Your task to perform on an android device: snooze an email in the gmail app Image 0: 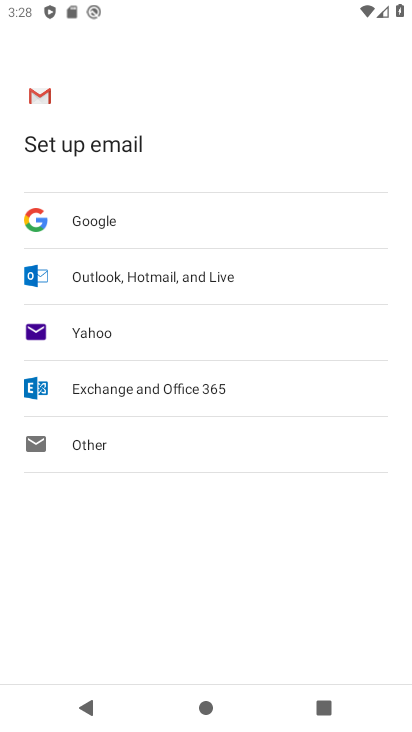
Step 0: press home button
Your task to perform on an android device: snooze an email in the gmail app Image 1: 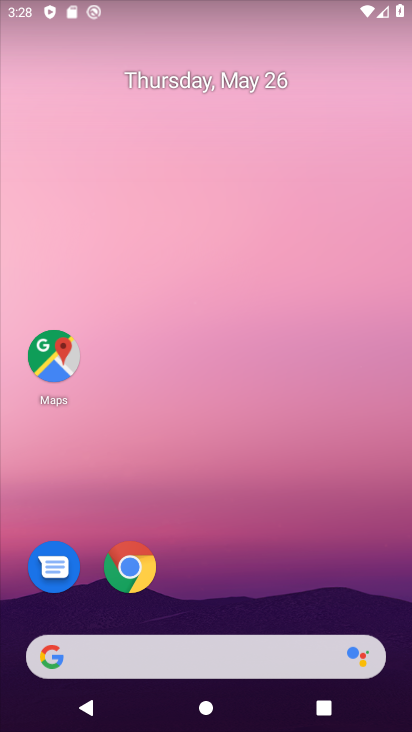
Step 1: drag from (263, 579) to (334, 116)
Your task to perform on an android device: snooze an email in the gmail app Image 2: 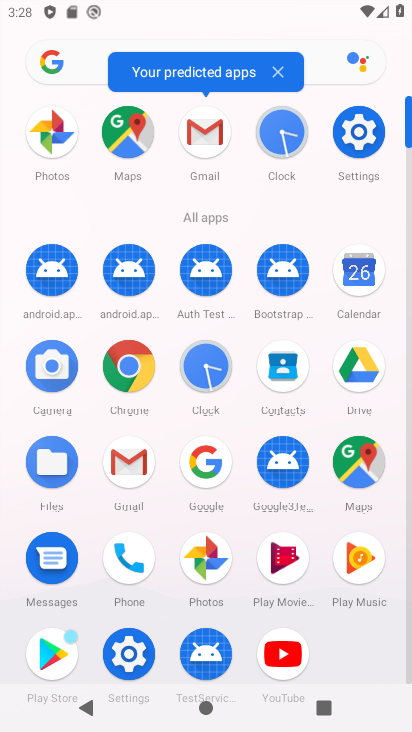
Step 2: click (145, 465)
Your task to perform on an android device: snooze an email in the gmail app Image 3: 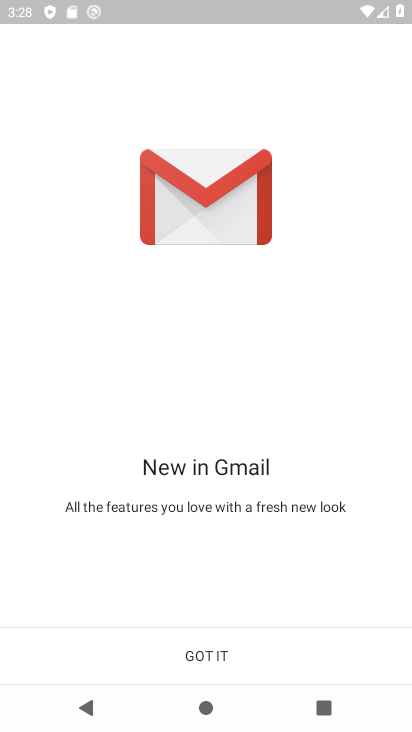
Step 3: click (229, 652)
Your task to perform on an android device: snooze an email in the gmail app Image 4: 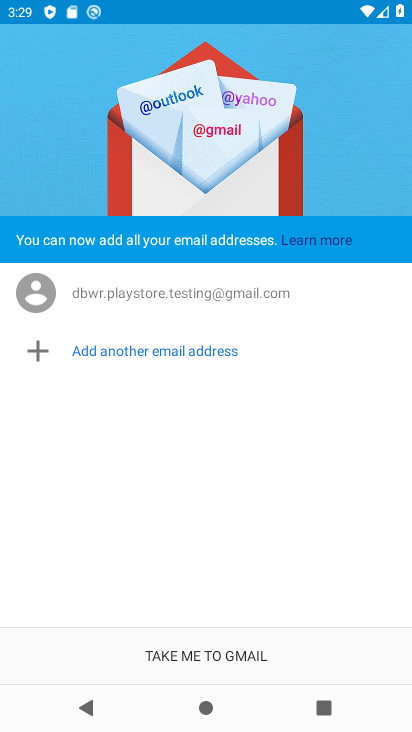
Step 4: click (242, 656)
Your task to perform on an android device: snooze an email in the gmail app Image 5: 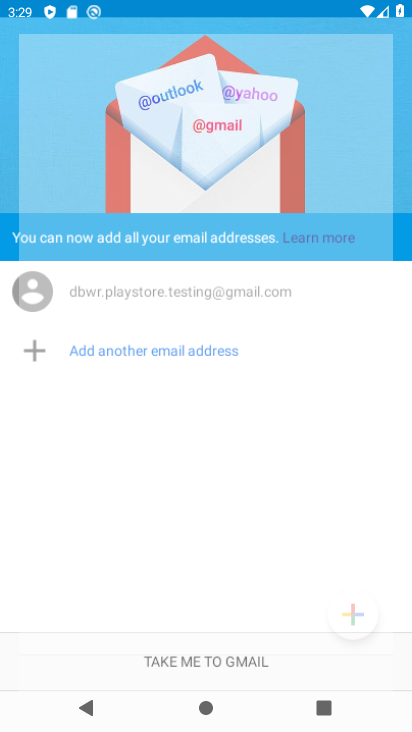
Step 5: click (242, 656)
Your task to perform on an android device: snooze an email in the gmail app Image 6: 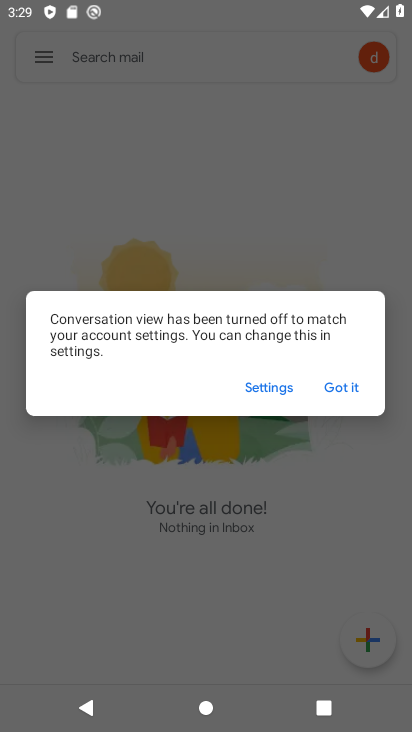
Step 6: click (350, 382)
Your task to perform on an android device: snooze an email in the gmail app Image 7: 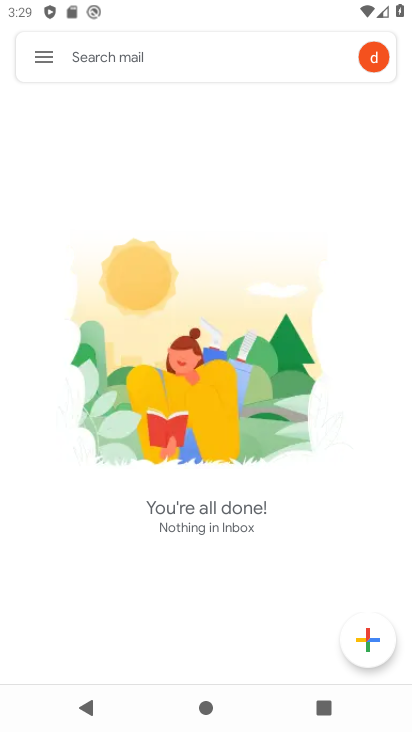
Step 7: click (53, 52)
Your task to perform on an android device: snooze an email in the gmail app Image 8: 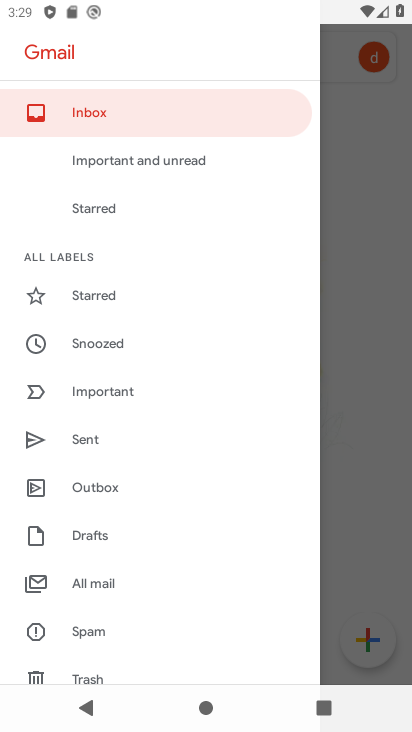
Step 8: drag from (90, 630) to (247, 221)
Your task to perform on an android device: snooze an email in the gmail app Image 9: 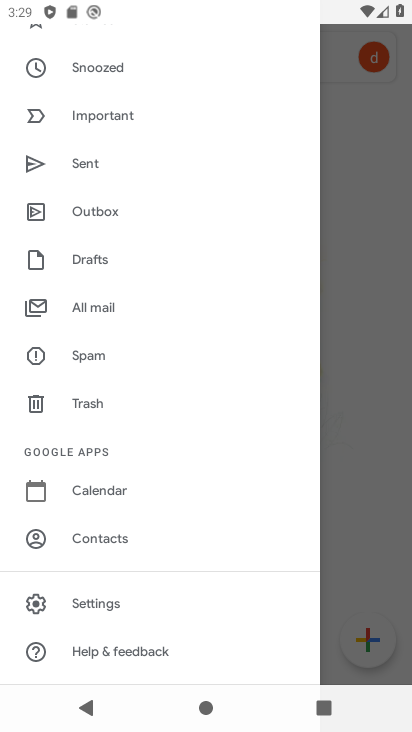
Step 9: click (126, 309)
Your task to perform on an android device: snooze an email in the gmail app Image 10: 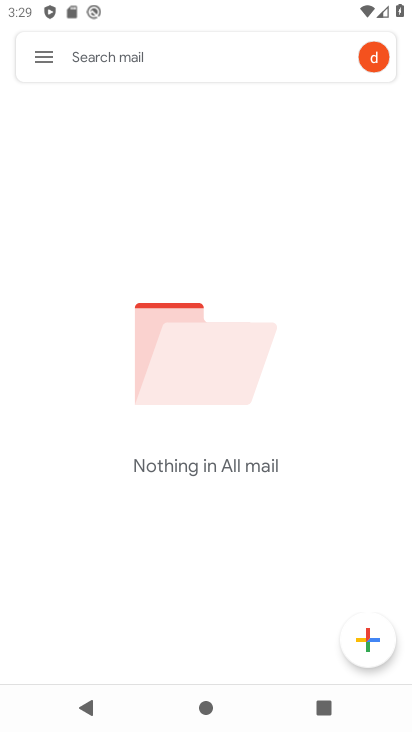
Step 10: task complete